Your task to perform on an android device: Go to ESPN.com Image 0: 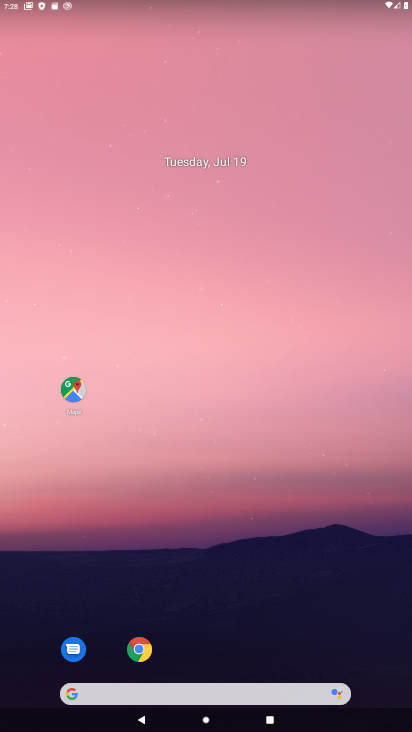
Step 0: click (141, 650)
Your task to perform on an android device: Go to ESPN.com Image 1: 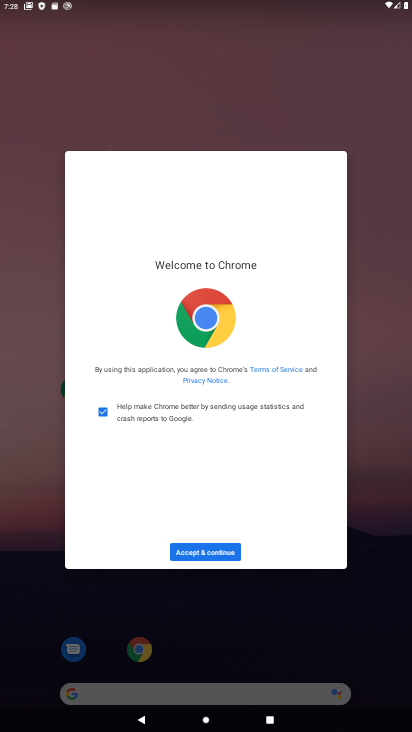
Step 1: click (209, 553)
Your task to perform on an android device: Go to ESPN.com Image 2: 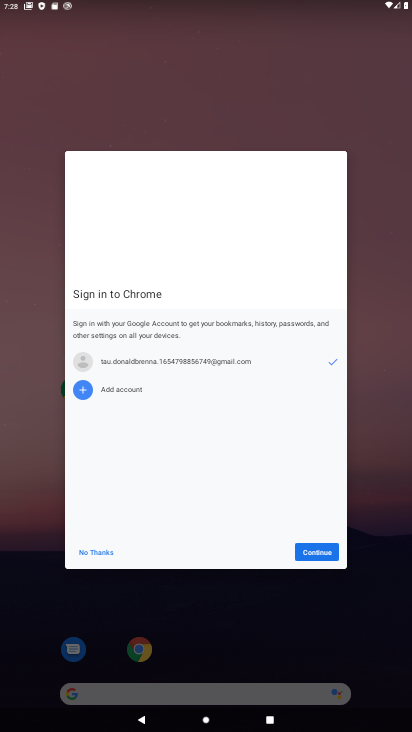
Step 2: click (317, 554)
Your task to perform on an android device: Go to ESPN.com Image 3: 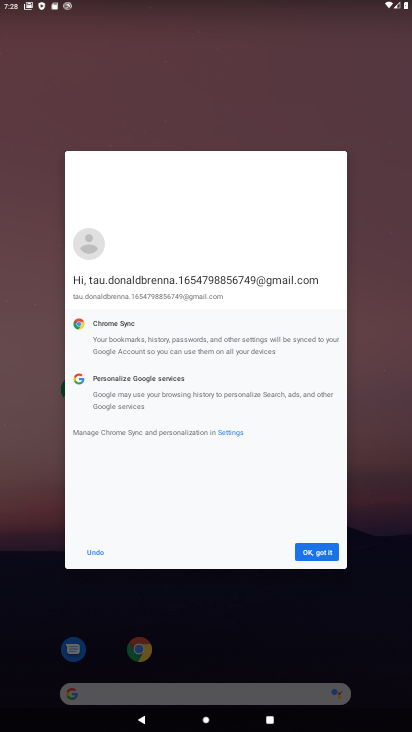
Step 3: click (317, 554)
Your task to perform on an android device: Go to ESPN.com Image 4: 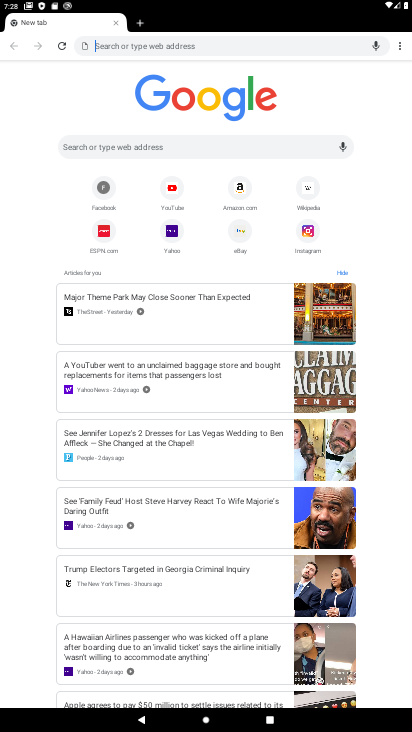
Step 4: click (106, 234)
Your task to perform on an android device: Go to ESPN.com Image 5: 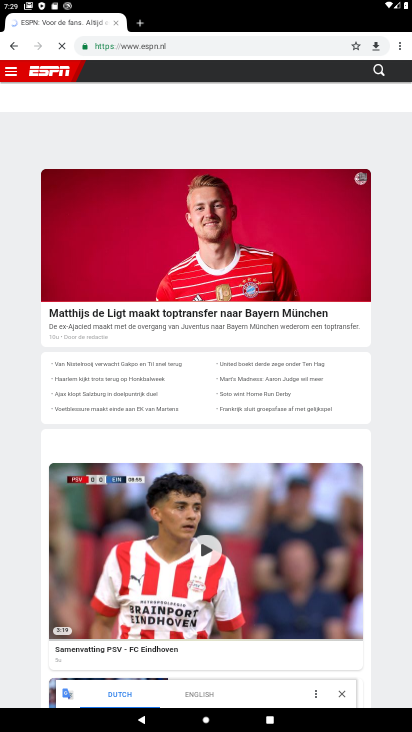
Step 5: task complete